Your task to perform on an android device: Open the Play Movies app and select the watchlist tab. Image 0: 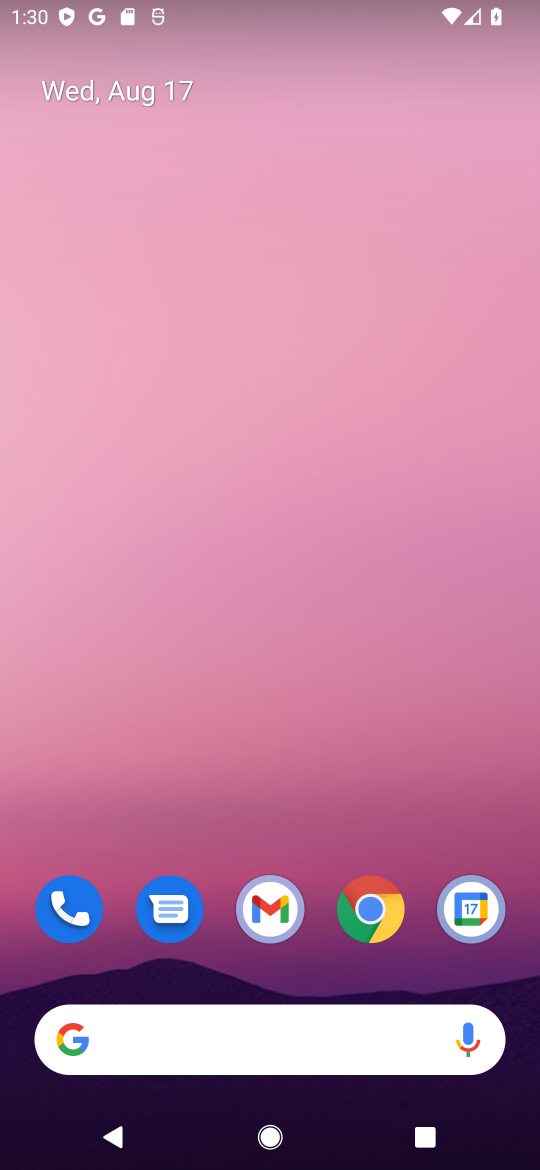
Step 0: drag from (284, 791) to (283, 30)
Your task to perform on an android device: Open the Play Movies app and select the watchlist tab. Image 1: 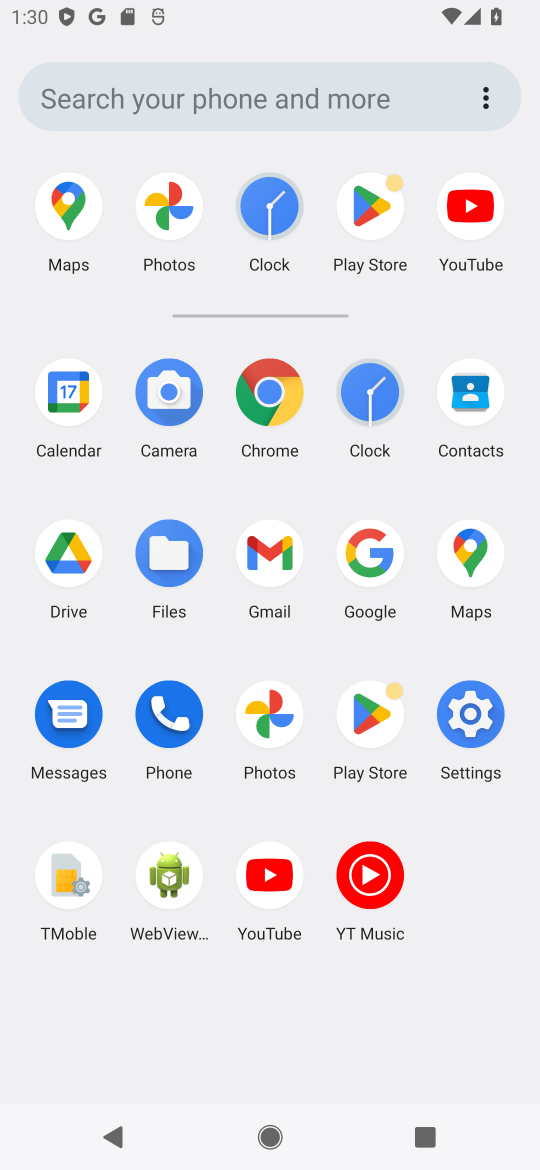
Step 1: task complete